Your task to perform on an android device: Go to wifi settings Image 0: 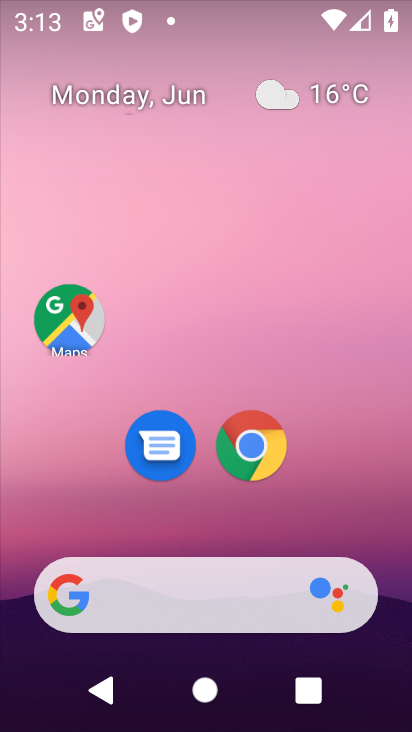
Step 0: drag from (260, 541) to (305, 239)
Your task to perform on an android device: Go to wifi settings Image 1: 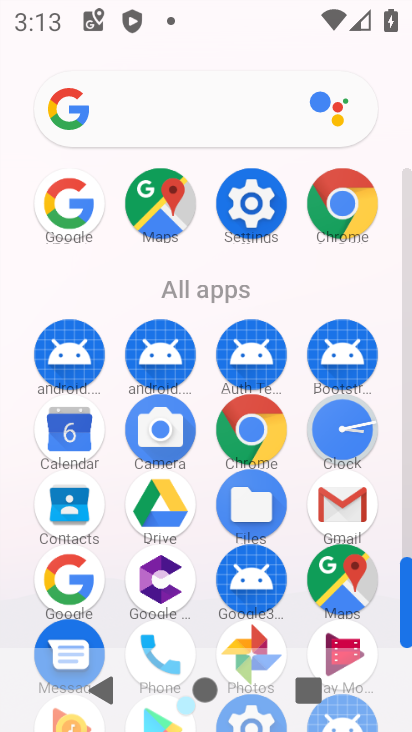
Step 1: click (253, 210)
Your task to perform on an android device: Go to wifi settings Image 2: 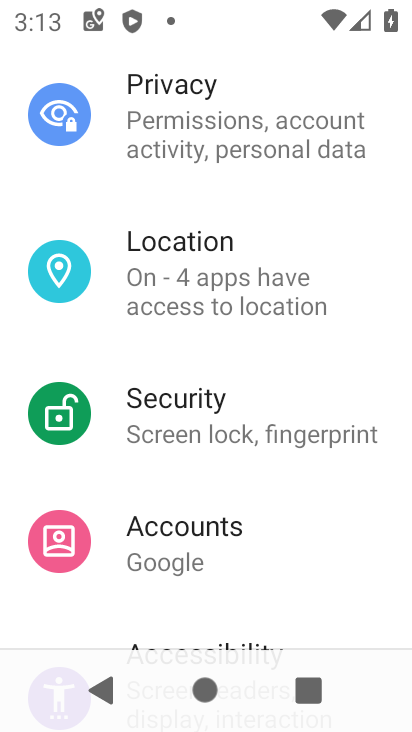
Step 2: drag from (218, 252) to (222, 609)
Your task to perform on an android device: Go to wifi settings Image 3: 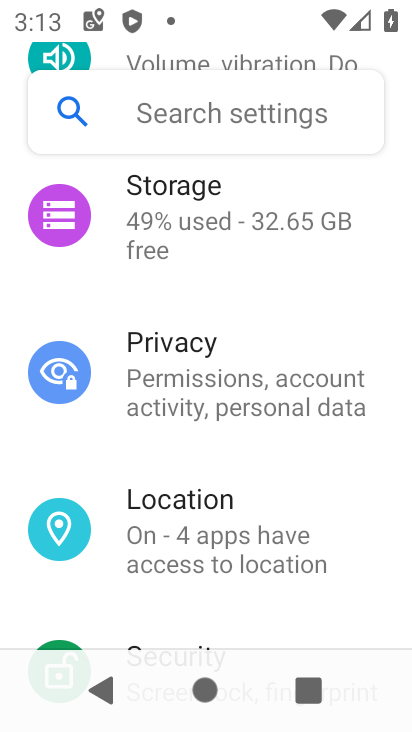
Step 3: drag from (184, 195) to (193, 607)
Your task to perform on an android device: Go to wifi settings Image 4: 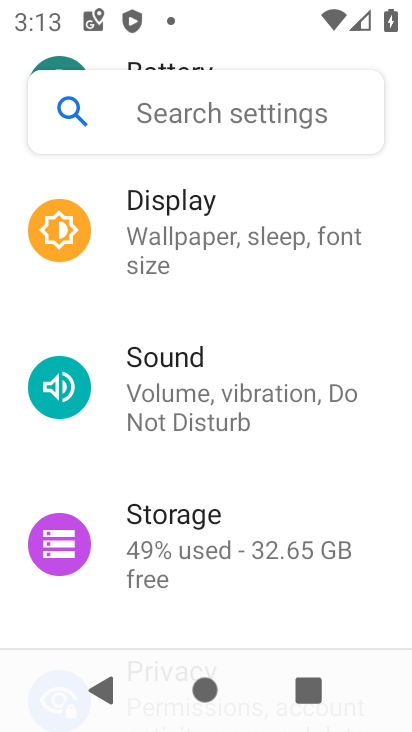
Step 4: drag from (169, 234) to (162, 610)
Your task to perform on an android device: Go to wifi settings Image 5: 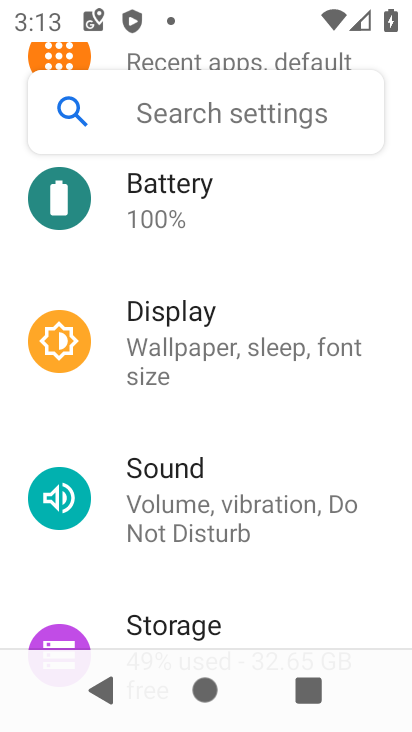
Step 5: drag from (156, 224) to (182, 642)
Your task to perform on an android device: Go to wifi settings Image 6: 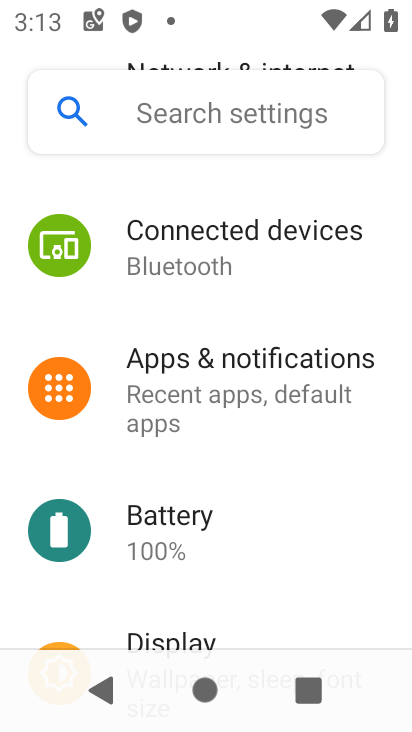
Step 6: drag from (188, 231) to (197, 602)
Your task to perform on an android device: Go to wifi settings Image 7: 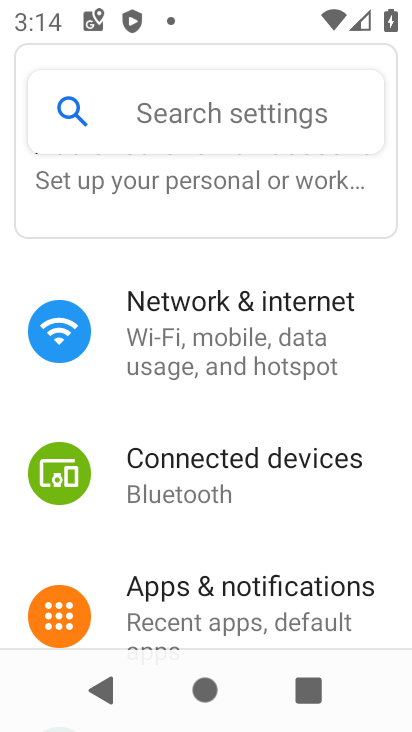
Step 7: click (188, 324)
Your task to perform on an android device: Go to wifi settings Image 8: 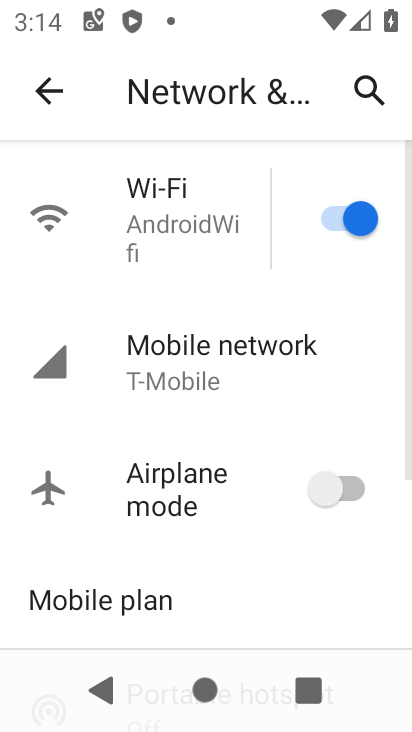
Step 8: click (229, 222)
Your task to perform on an android device: Go to wifi settings Image 9: 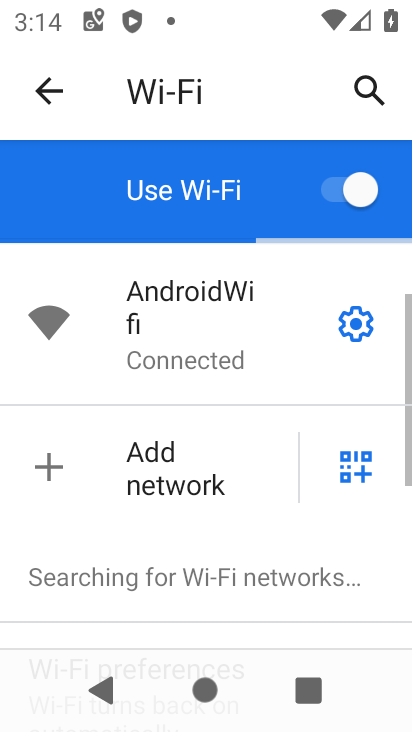
Step 9: task complete